Your task to perform on an android device: Open Google Maps and go to "Timeline" Image 0: 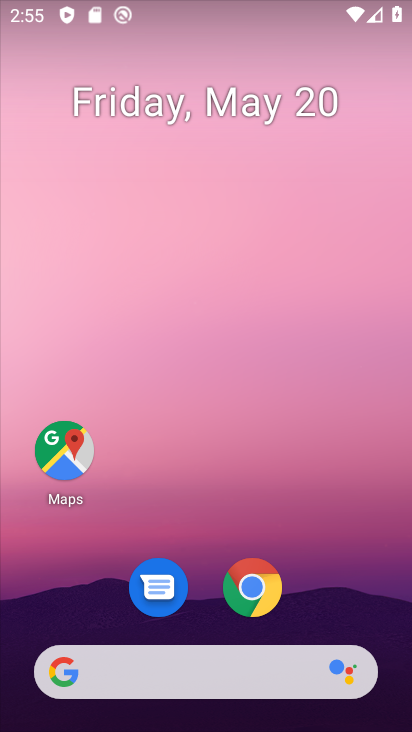
Step 0: click (46, 442)
Your task to perform on an android device: Open Google Maps and go to "Timeline" Image 1: 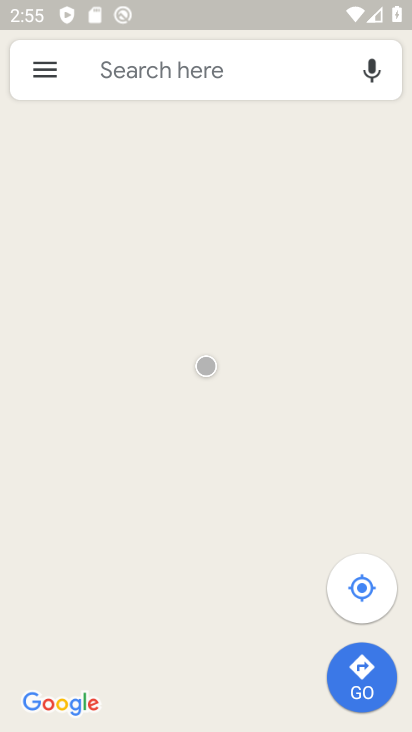
Step 1: click (38, 71)
Your task to perform on an android device: Open Google Maps and go to "Timeline" Image 2: 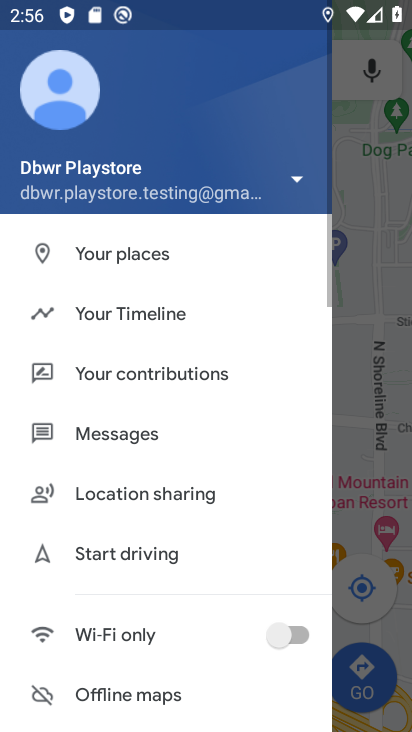
Step 2: click (129, 316)
Your task to perform on an android device: Open Google Maps and go to "Timeline" Image 3: 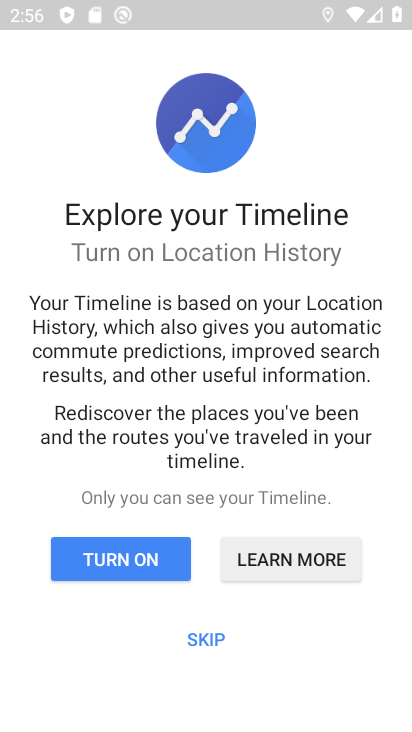
Step 3: click (196, 638)
Your task to perform on an android device: Open Google Maps and go to "Timeline" Image 4: 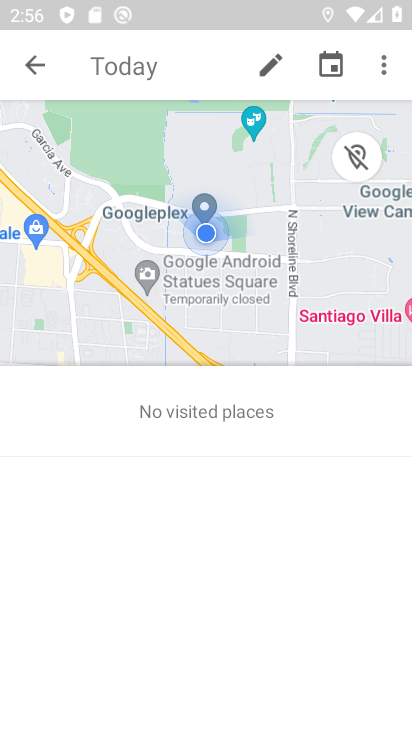
Step 4: task complete